Your task to perform on an android device: check the backup settings in the google photos Image 0: 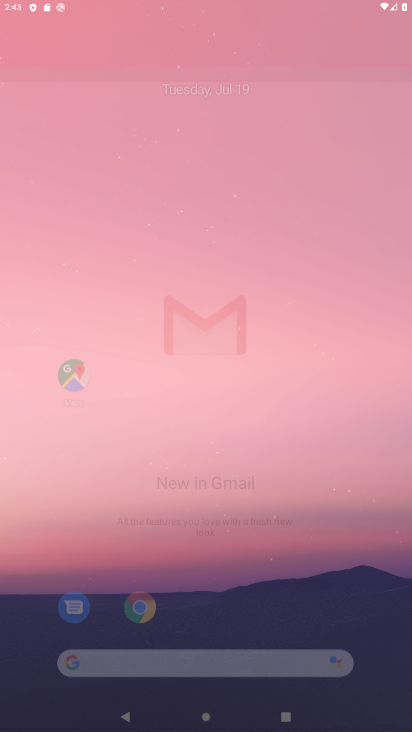
Step 0: click (181, 164)
Your task to perform on an android device: check the backup settings in the google photos Image 1: 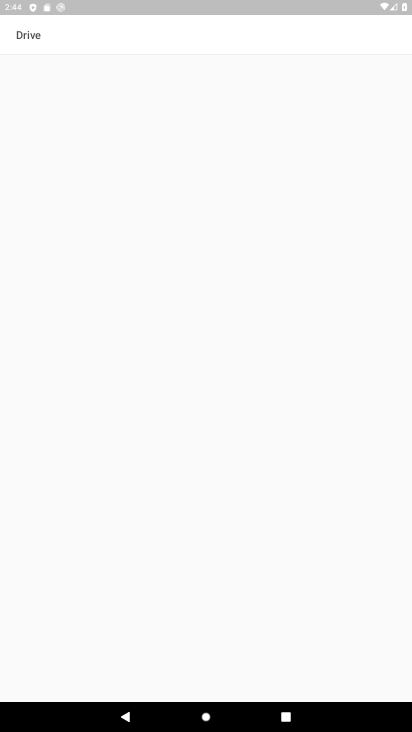
Step 1: press home button
Your task to perform on an android device: check the backup settings in the google photos Image 2: 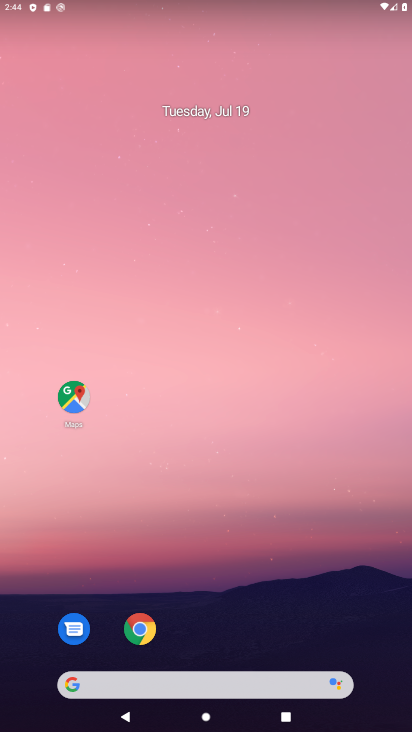
Step 2: drag from (195, 686) to (178, 436)
Your task to perform on an android device: check the backup settings in the google photos Image 3: 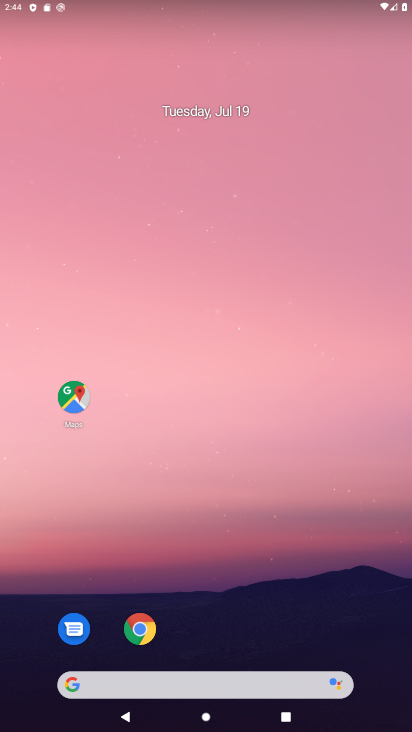
Step 3: drag from (207, 669) to (190, 231)
Your task to perform on an android device: check the backup settings in the google photos Image 4: 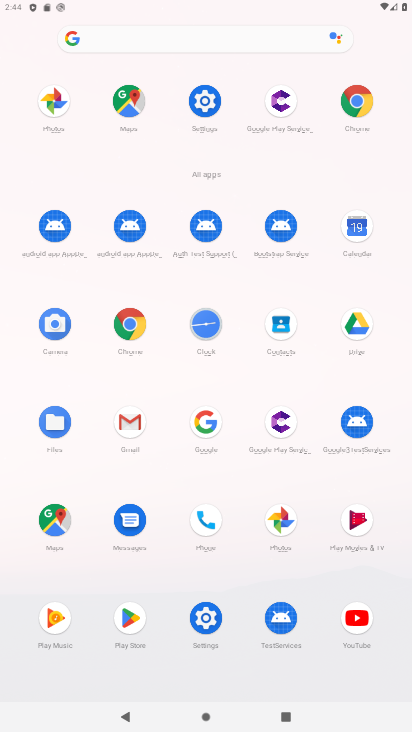
Step 4: click (274, 529)
Your task to perform on an android device: check the backup settings in the google photos Image 5: 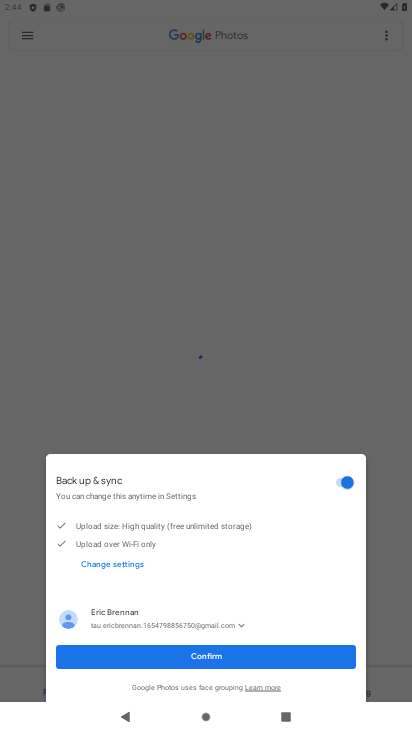
Step 5: drag from (202, 654) to (275, 654)
Your task to perform on an android device: check the backup settings in the google photos Image 6: 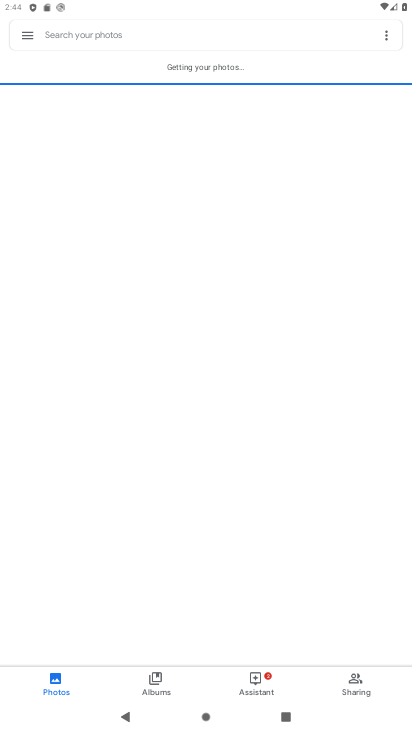
Step 6: click (28, 30)
Your task to perform on an android device: check the backup settings in the google photos Image 7: 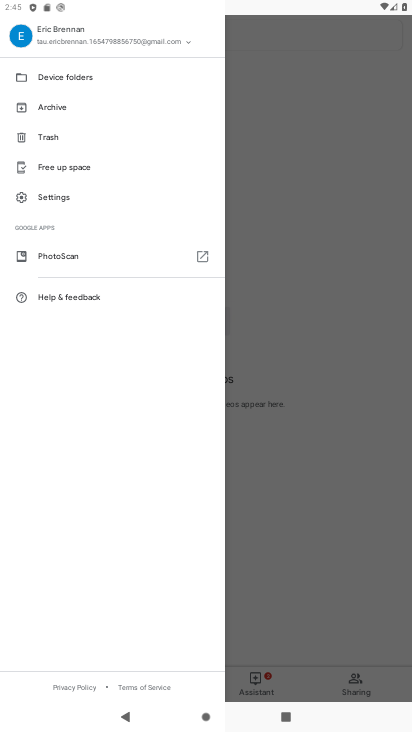
Step 7: click (68, 192)
Your task to perform on an android device: check the backup settings in the google photos Image 8: 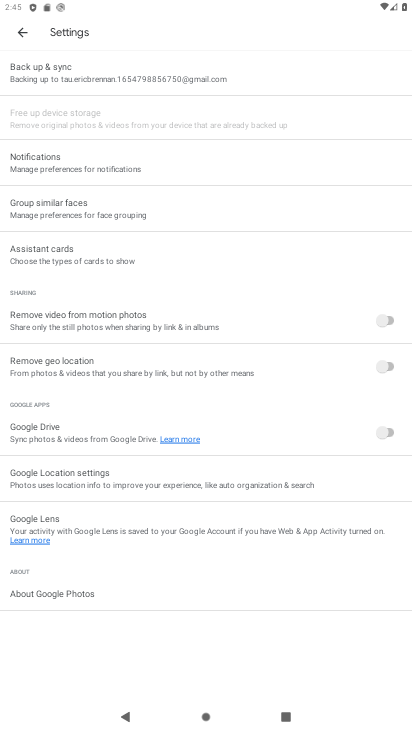
Step 8: click (79, 84)
Your task to perform on an android device: check the backup settings in the google photos Image 9: 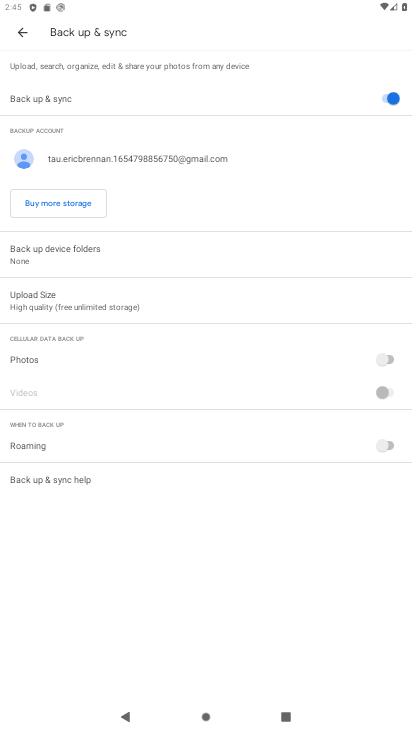
Step 9: task complete